Your task to perform on an android device: Go to Yahoo.com Image 0: 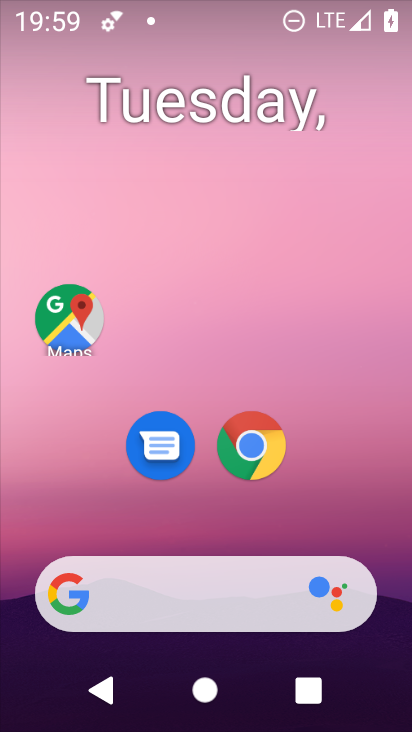
Step 0: drag from (283, 532) to (187, 88)
Your task to perform on an android device: Go to Yahoo.com Image 1: 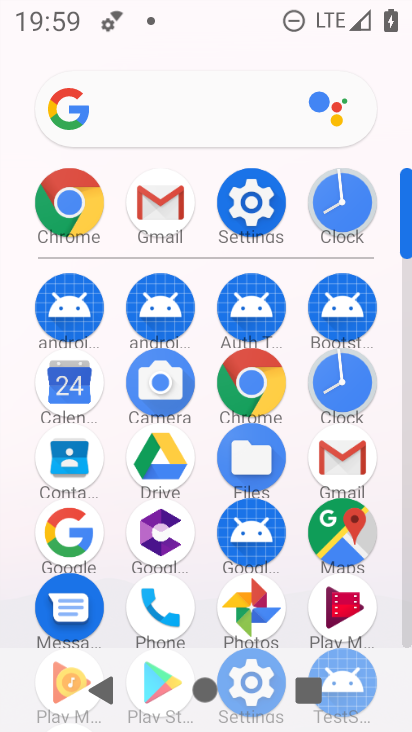
Step 1: click (236, 416)
Your task to perform on an android device: Go to Yahoo.com Image 2: 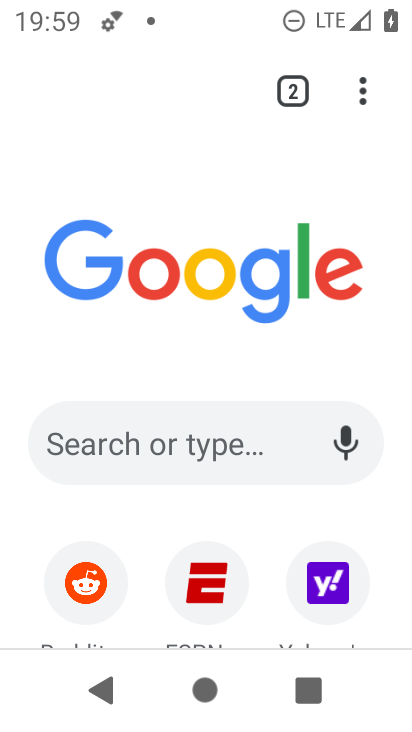
Step 2: click (362, 593)
Your task to perform on an android device: Go to Yahoo.com Image 3: 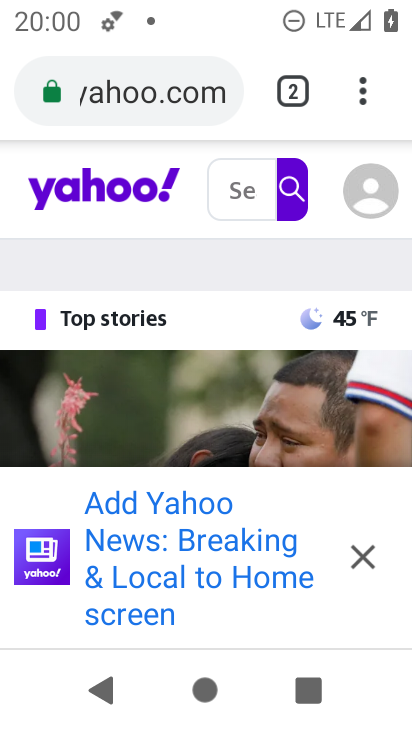
Step 3: task complete